Your task to perform on an android device: find photos in the google photos app Image 0: 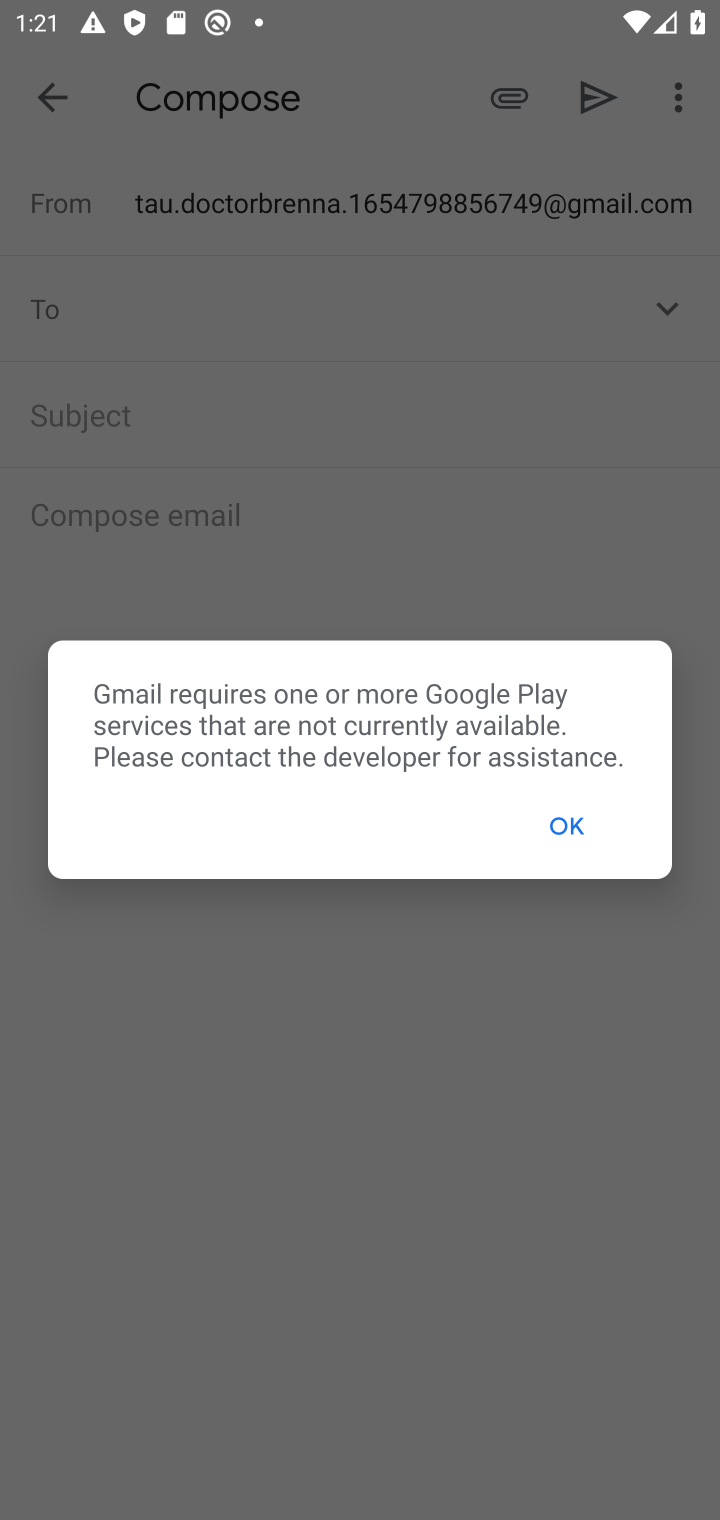
Step 0: press home button
Your task to perform on an android device: find photos in the google photos app Image 1: 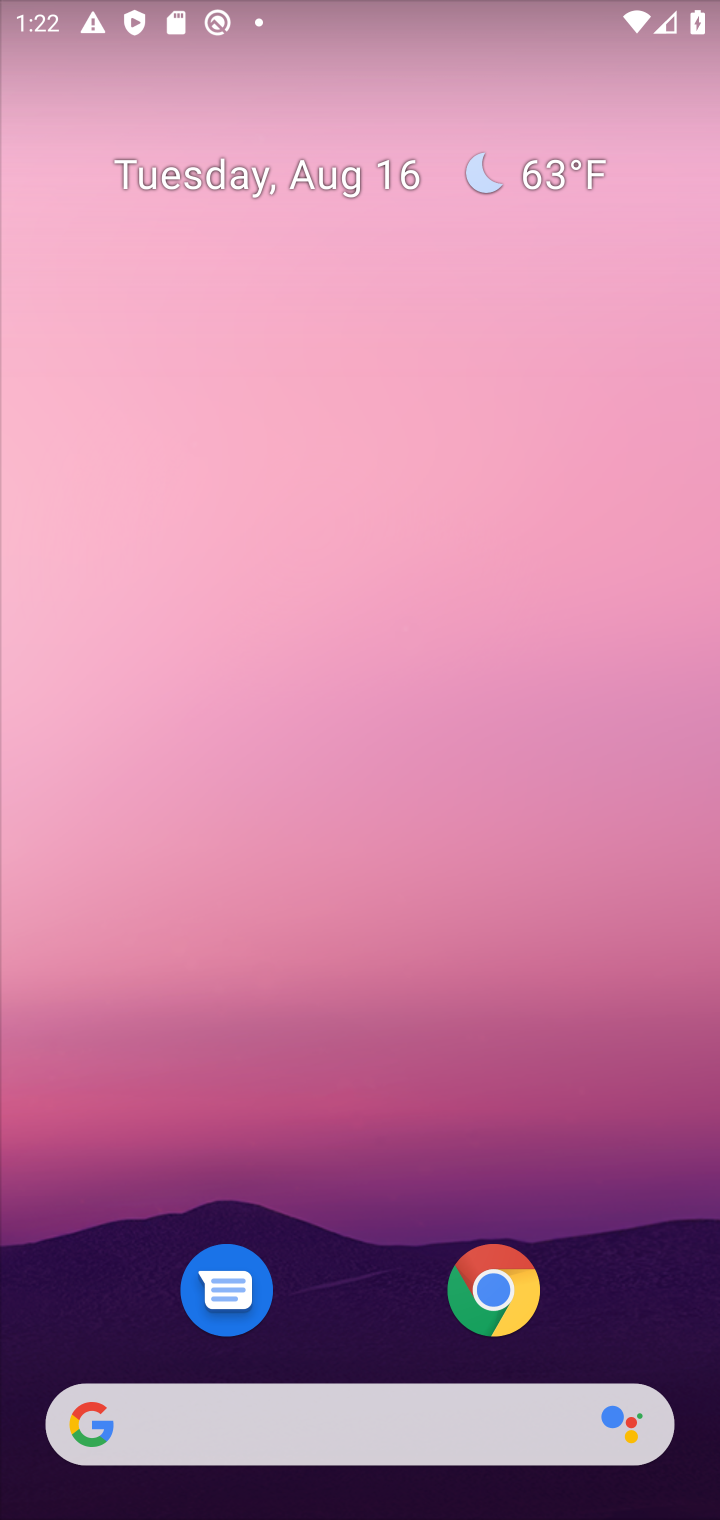
Step 1: drag from (199, 947) to (423, 150)
Your task to perform on an android device: find photos in the google photos app Image 2: 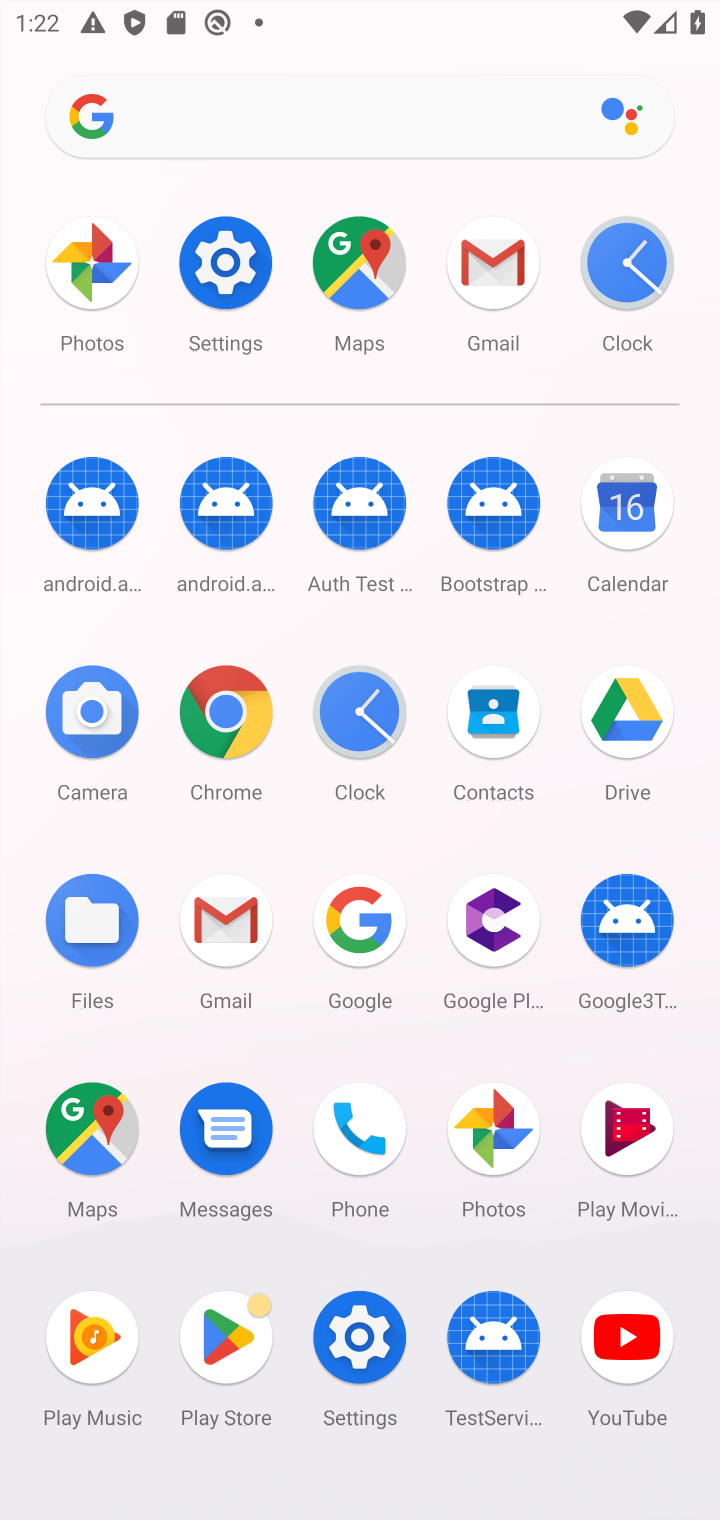
Step 2: click (88, 294)
Your task to perform on an android device: find photos in the google photos app Image 3: 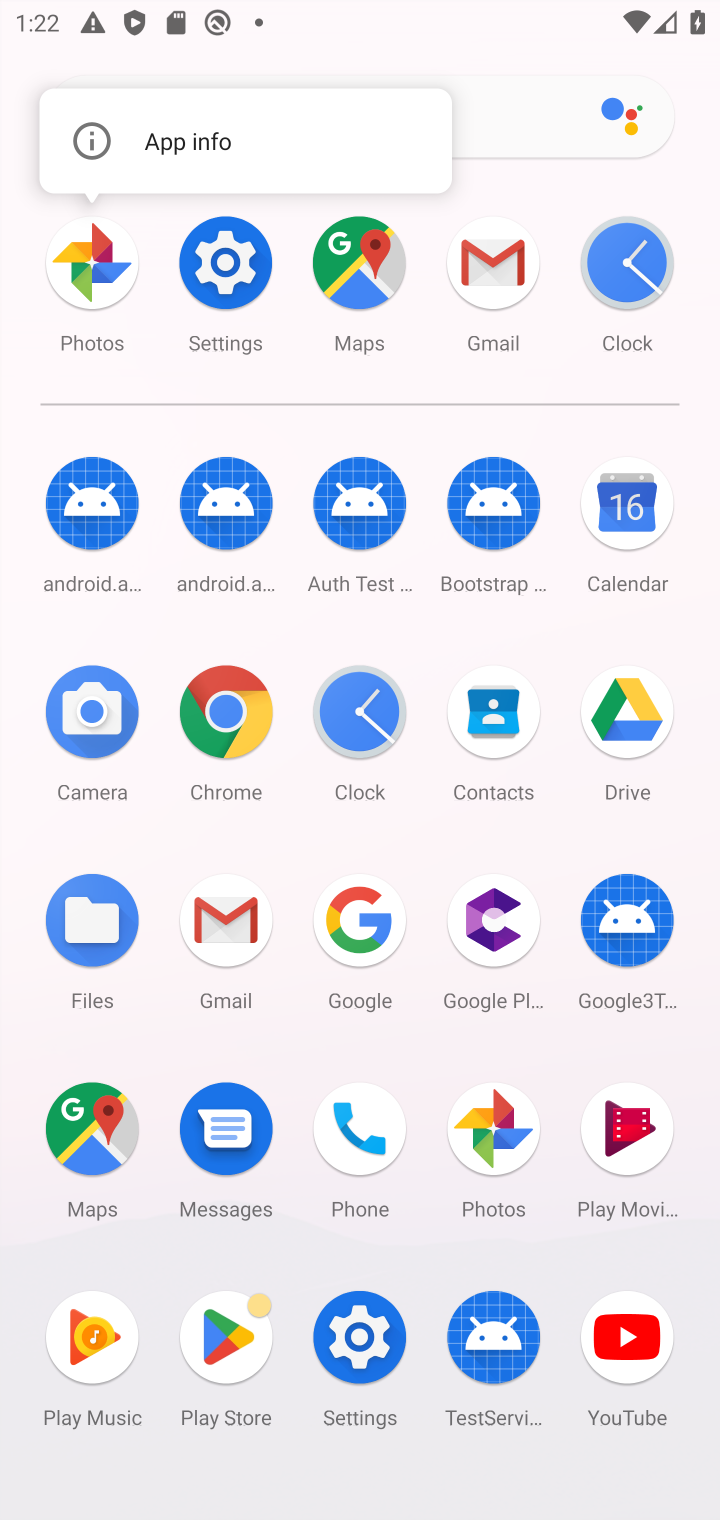
Step 3: click (92, 258)
Your task to perform on an android device: find photos in the google photos app Image 4: 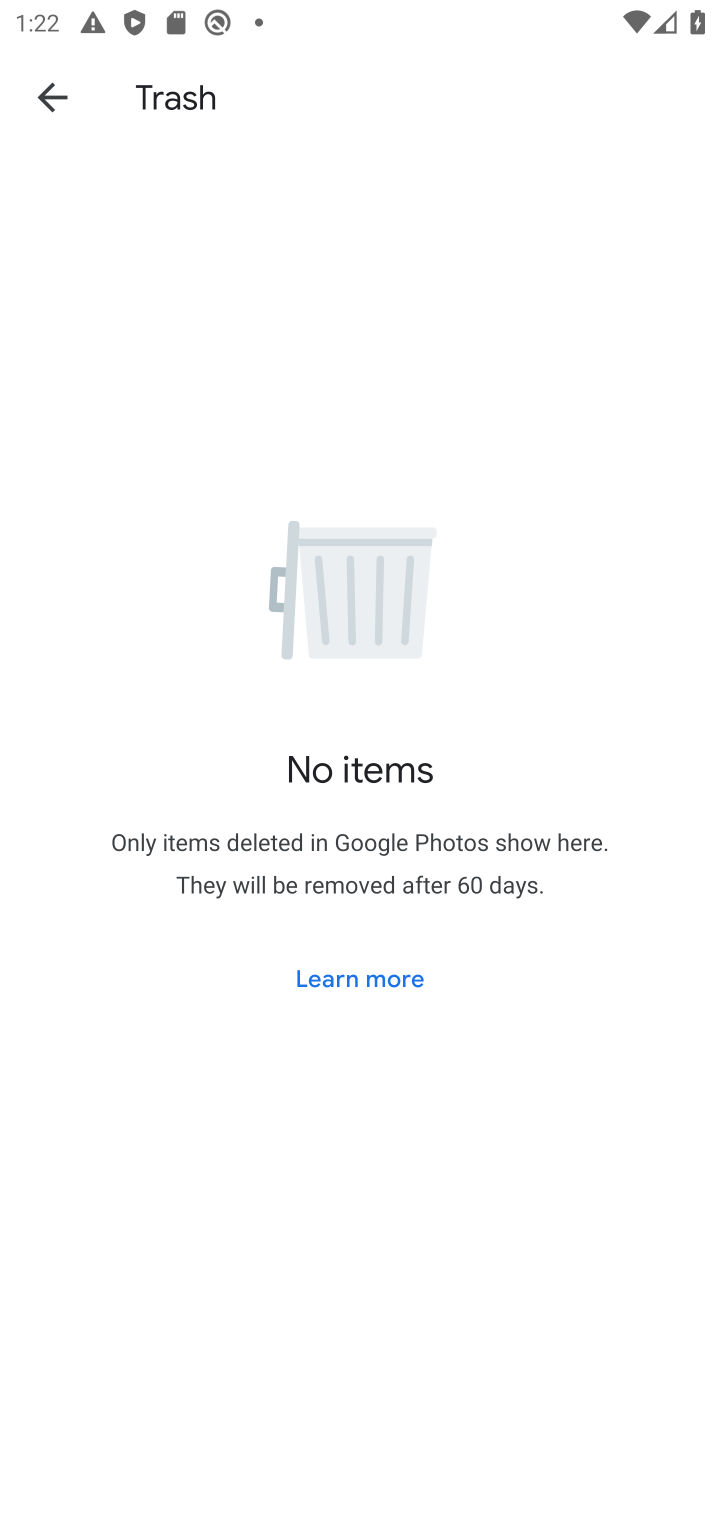
Step 4: click (38, 101)
Your task to perform on an android device: find photos in the google photos app Image 5: 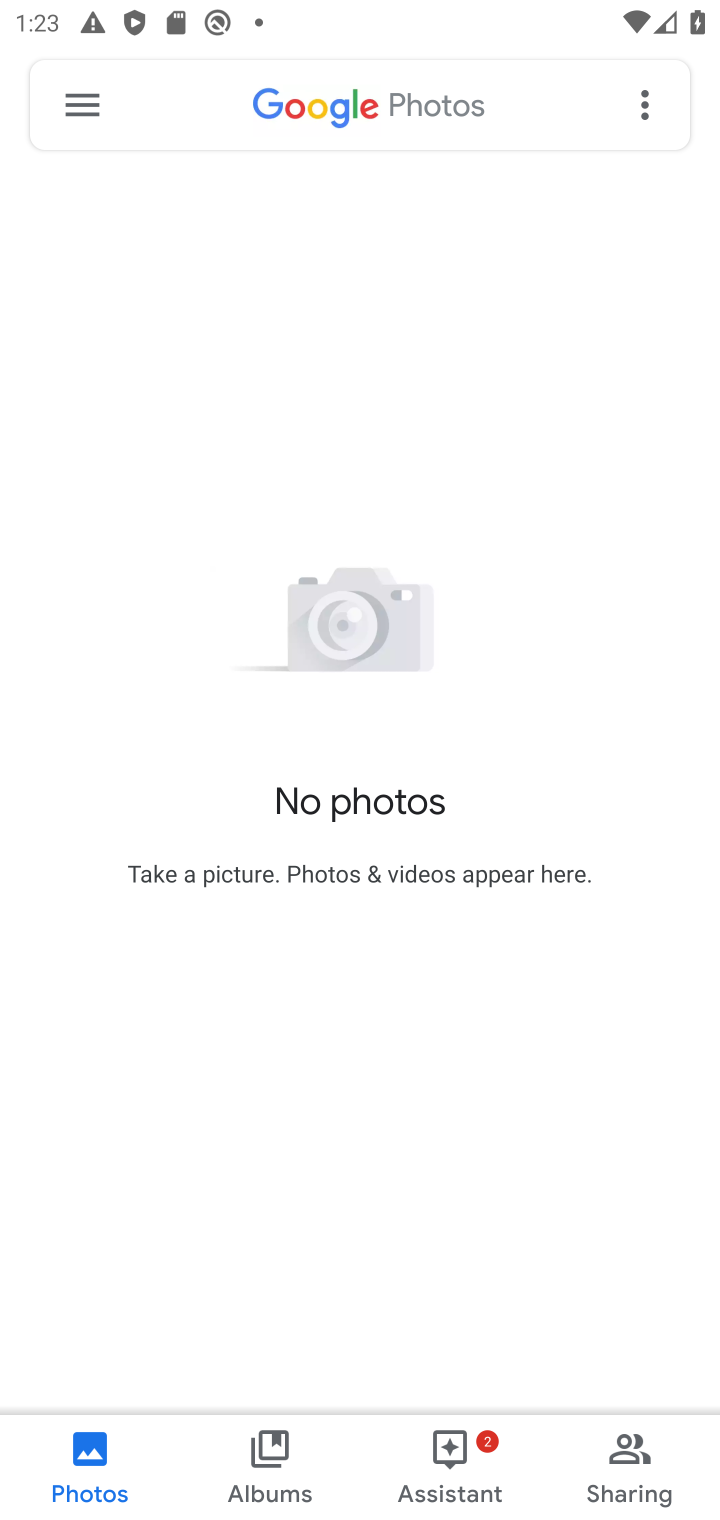
Step 5: task complete